Your task to perform on an android device: Open my contact list Image 0: 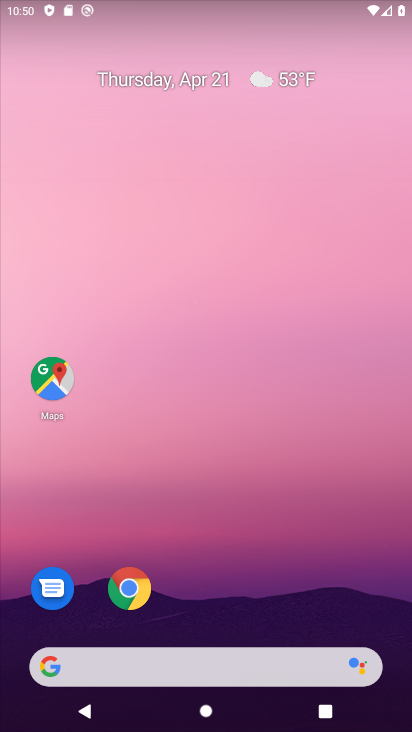
Step 0: drag from (205, 609) to (137, 9)
Your task to perform on an android device: Open my contact list Image 1: 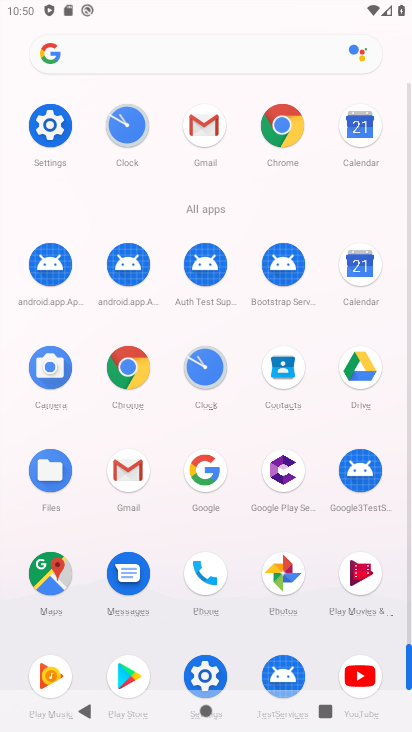
Step 1: click (279, 367)
Your task to perform on an android device: Open my contact list Image 2: 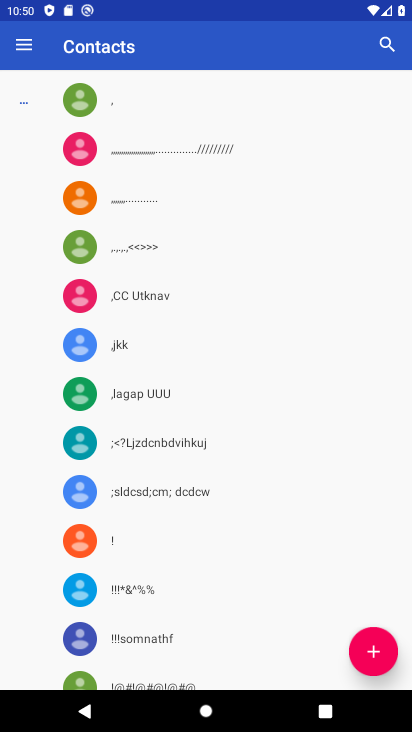
Step 2: task complete